Your task to perform on an android device: Search for Mexican restaurants on Maps Image 0: 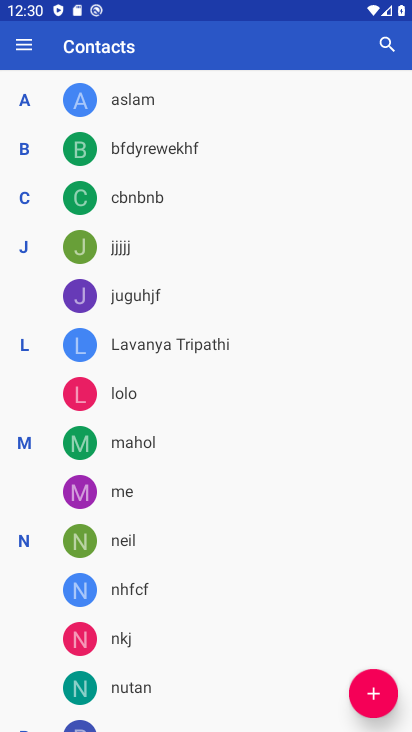
Step 0: press home button
Your task to perform on an android device: Search for Mexican restaurants on Maps Image 1: 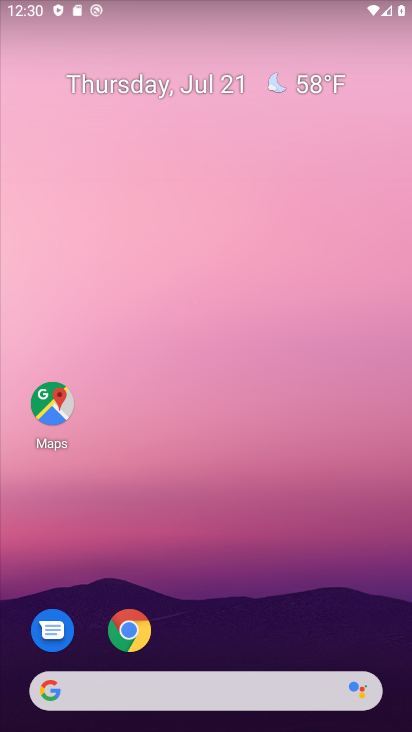
Step 1: click (50, 411)
Your task to perform on an android device: Search for Mexican restaurants on Maps Image 2: 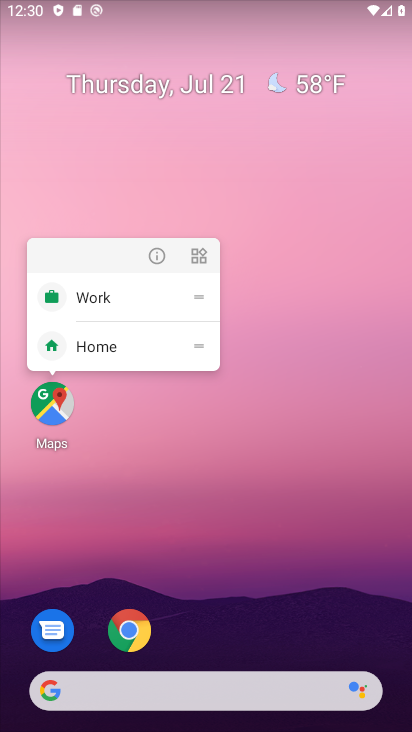
Step 2: click (50, 411)
Your task to perform on an android device: Search for Mexican restaurants on Maps Image 3: 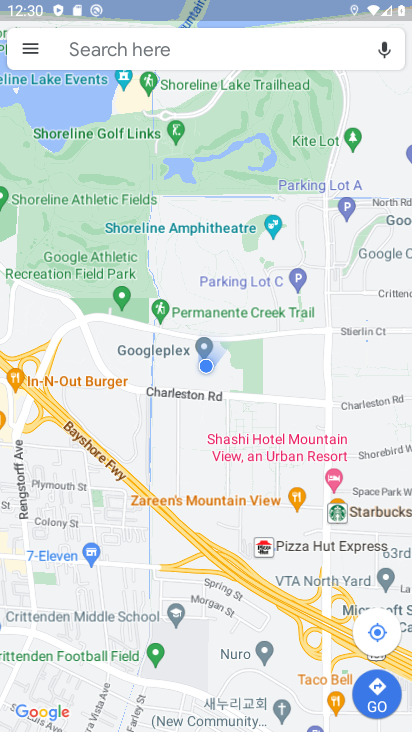
Step 3: click (197, 52)
Your task to perform on an android device: Search for Mexican restaurants on Maps Image 4: 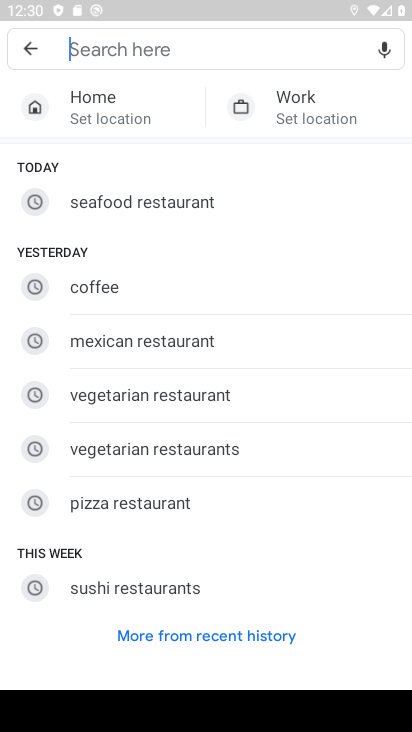
Step 4: click (126, 335)
Your task to perform on an android device: Search for Mexican restaurants on Maps Image 5: 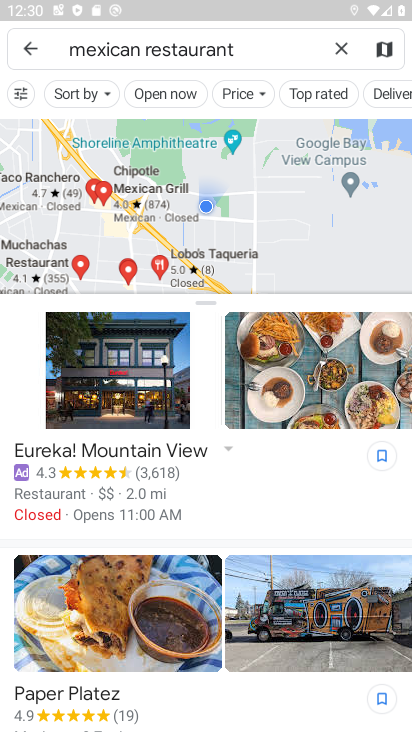
Step 5: task complete